Your task to perform on an android device: Open Chrome and go to the settings page Image 0: 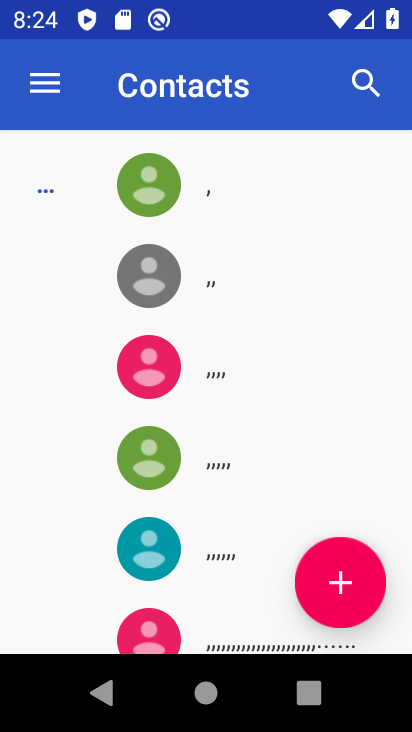
Step 0: press home button
Your task to perform on an android device: Open Chrome and go to the settings page Image 1: 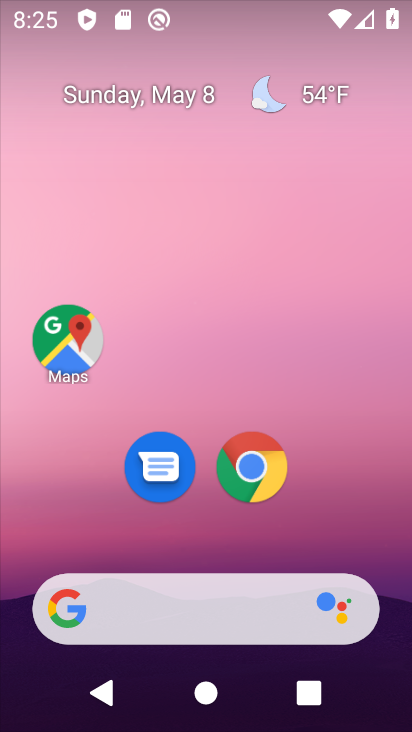
Step 1: click (247, 464)
Your task to perform on an android device: Open Chrome and go to the settings page Image 2: 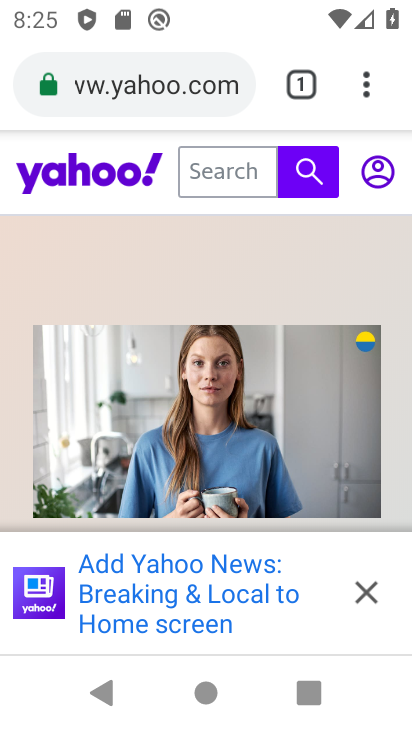
Step 2: click (364, 93)
Your task to perform on an android device: Open Chrome and go to the settings page Image 3: 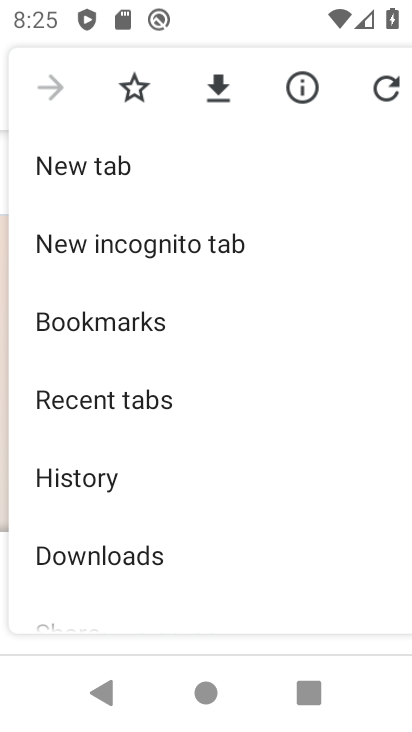
Step 3: drag from (174, 582) to (213, 235)
Your task to perform on an android device: Open Chrome and go to the settings page Image 4: 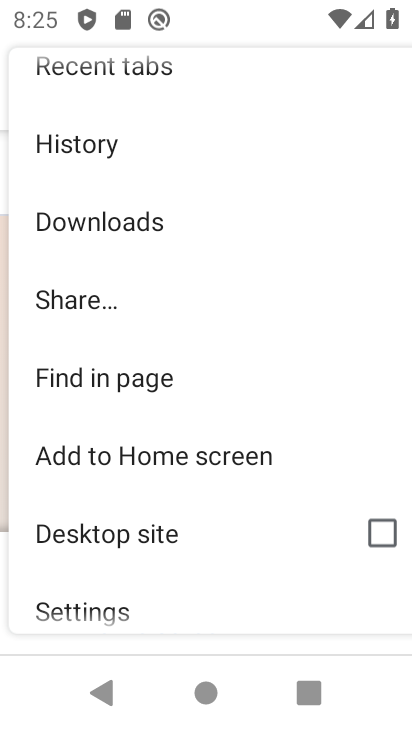
Step 4: drag from (232, 529) to (205, 177)
Your task to perform on an android device: Open Chrome and go to the settings page Image 5: 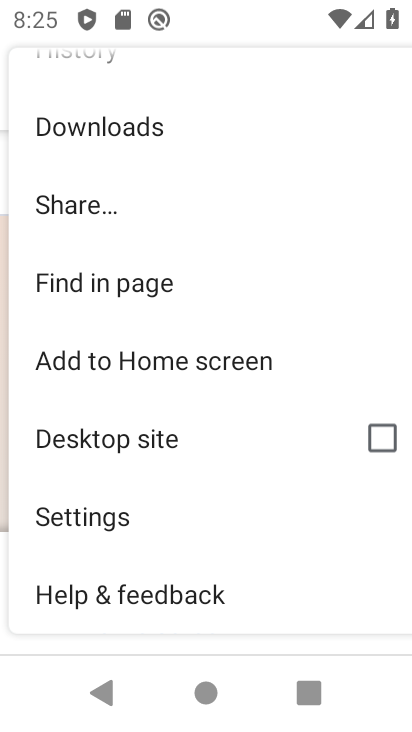
Step 5: click (57, 510)
Your task to perform on an android device: Open Chrome and go to the settings page Image 6: 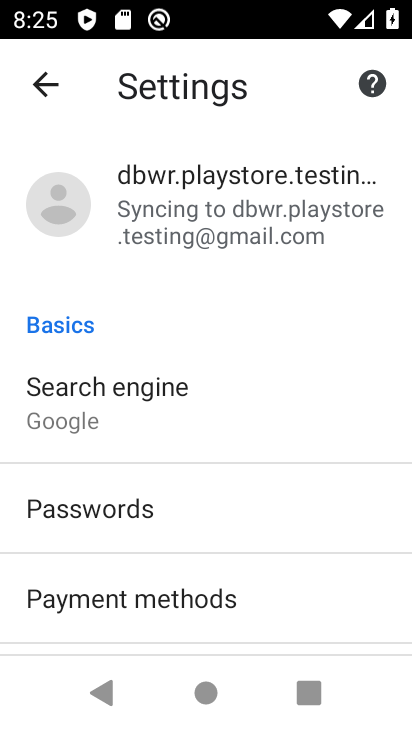
Step 6: task complete